Your task to perform on an android device: see tabs open on other devices in the chrome app Image 0: 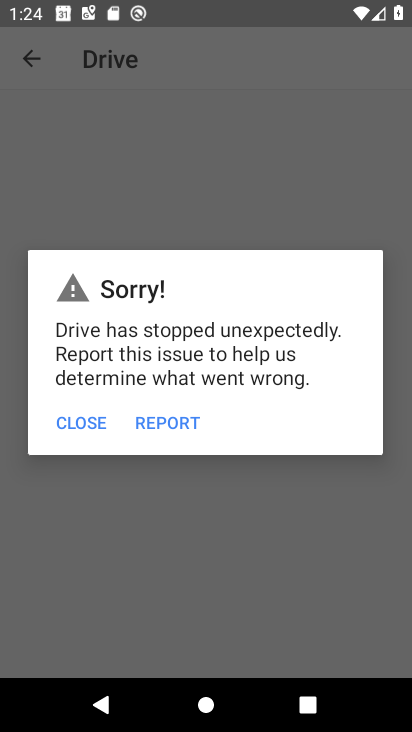
Step 0: press home button
Your task to perform on an android device: see tabs open on other devices in the chrome app Image 1: 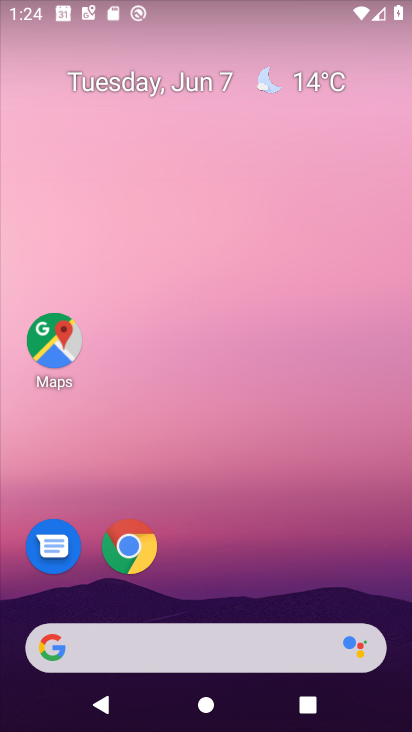
Step 1: click (145, 553)
Your task to perform on an android device: see tabs open on other devices in the chrome app Image 2: 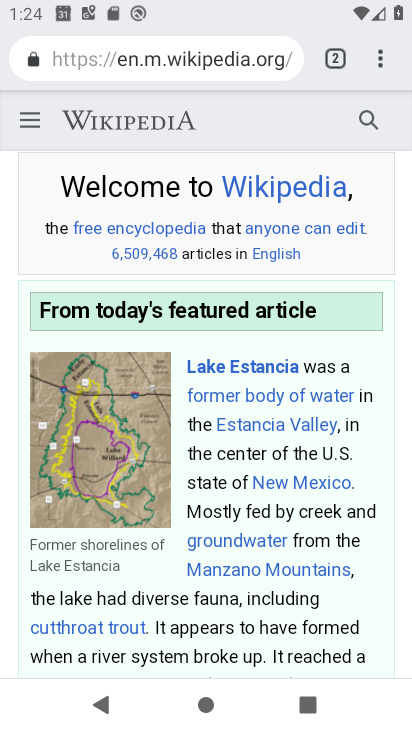
Step 2: drag from (377, 57) to (223, 13)
Your task to perform on an android device: see tabs open on other devices in the chrome app Image 3: 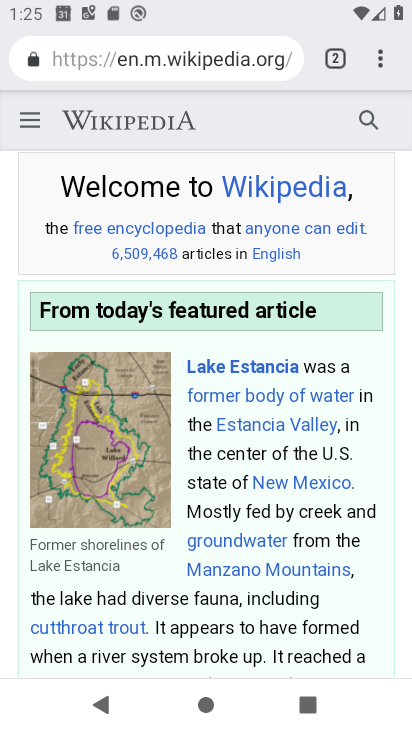
Step 3: click (191, 274)
Your task to perform on an android device: see tabs open on other devices in the chrome app Image 4: 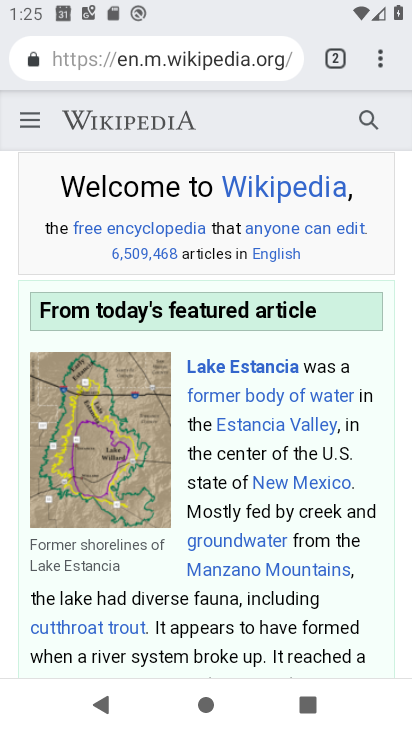
Step 4: click (381, 49)
Your task to perform on an android device: see tabs open on other devices in the chrome app Image 5: 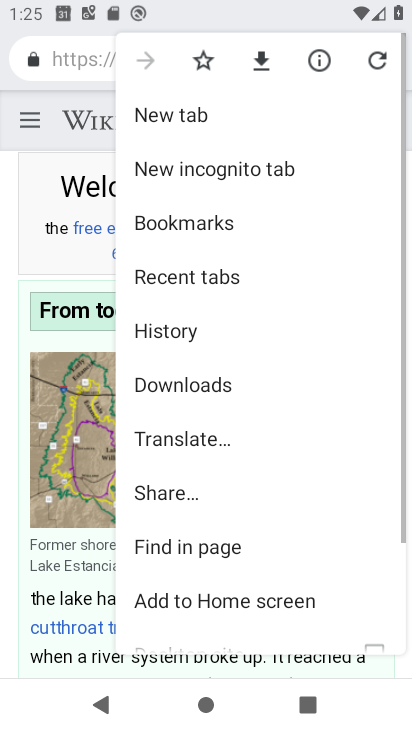
Step 5: click (212, 256)
Your task to perform on an android device: see tabs open on other devices in the chrome app Image 6: 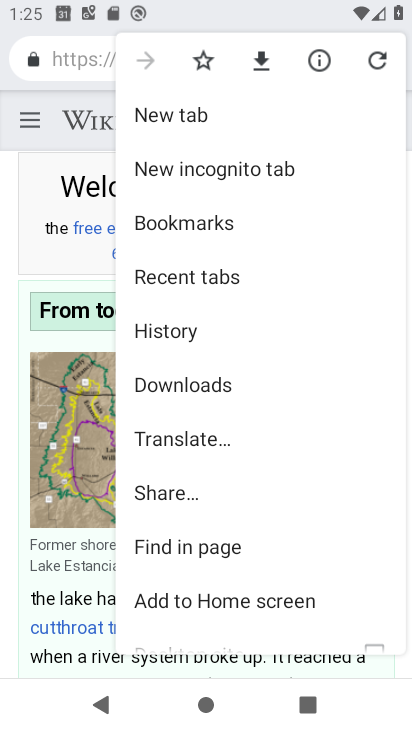
Step 6: click (217, 278)
Your task to perform on an android device: see tabs open on other devices in the chrome app Image 7: 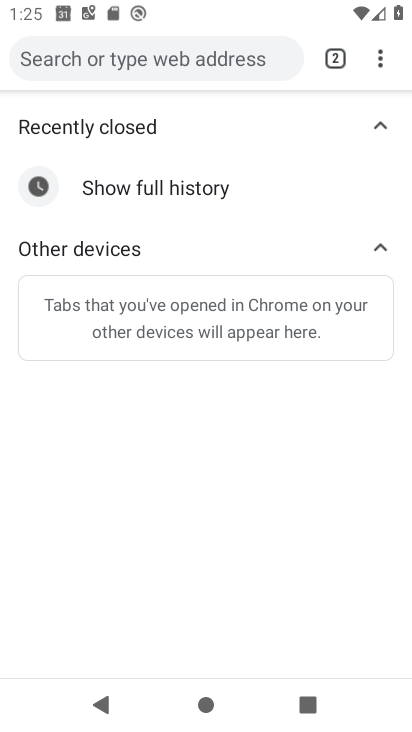
Step 7: click (245, 469)
Your task to perform on an android device: see tabs open on other devices in the chrome app Image 8: 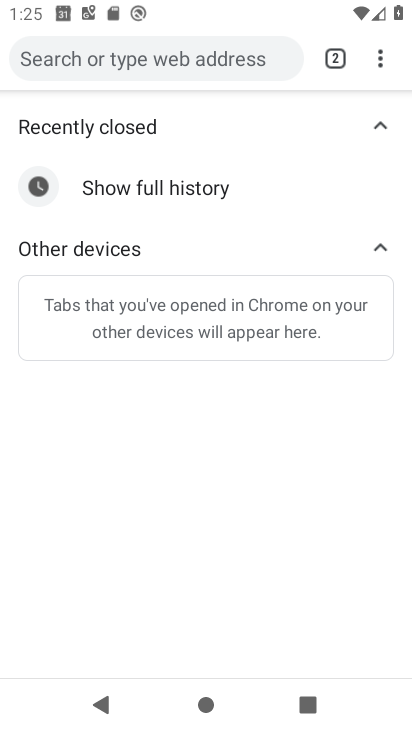
Step 8: click (375, 247)
Your task to perform on an android device: see tabs open on other devices in the chrome app Image 9: 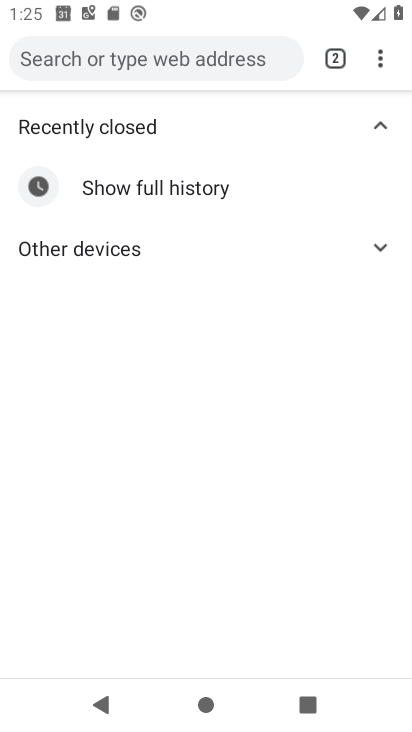
Step 9: click (378, 245)
Your task to perform on an android device: see tabs open on other devices in the chrome app Image 10: 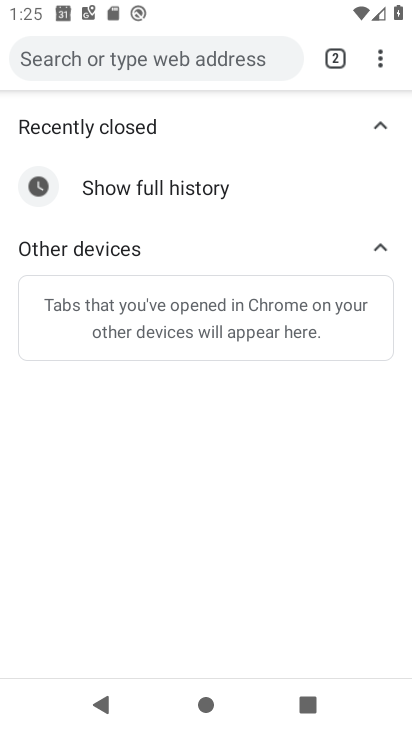
Step 10: press home button
Your task to perform on an android device: see tabs open on other devices in the chrome app Image 11: 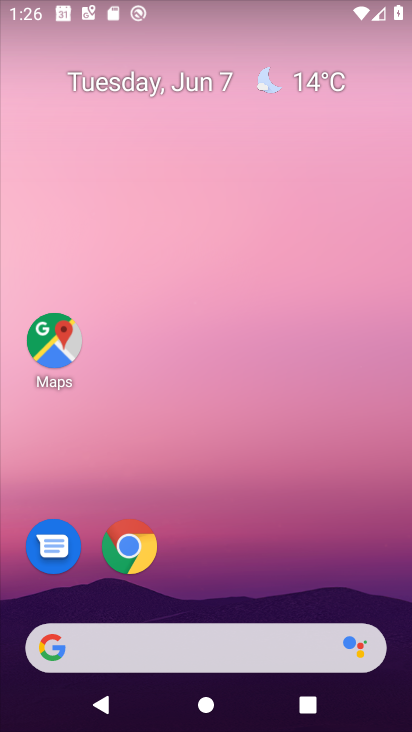
Step 11: click (128, 537)
Your task to perform on an android device: see tabs open on other devices in the chrome app Image 12: 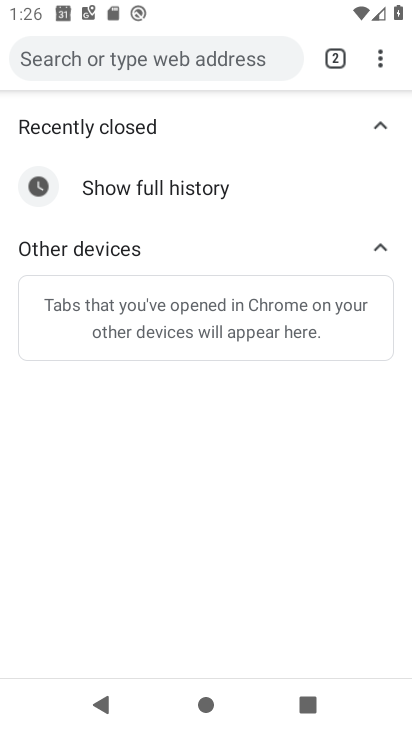
Step 12: task complete